Your task to perform on an android device: Go to internet settings Image 0: 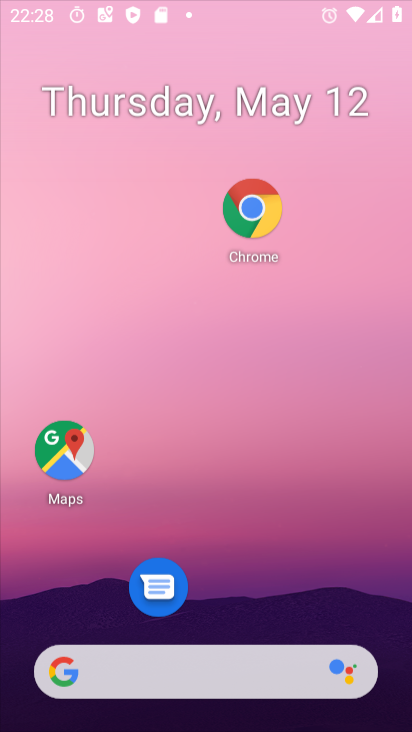
Step 0: click (266, 191)
Your task to perform on an android device: Go to internet settings Image 1: 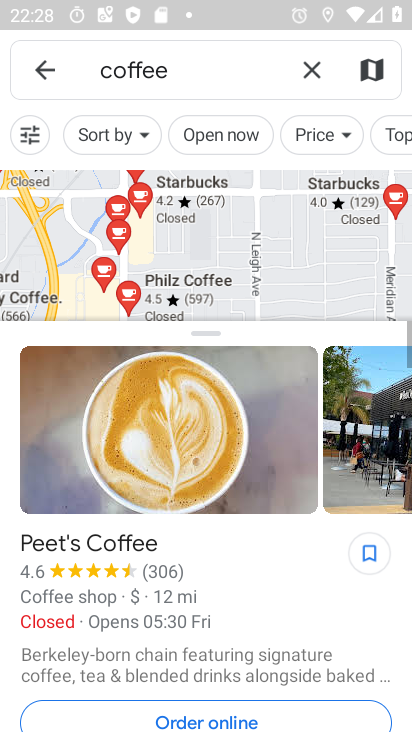
Step 1: press home button
Your task to perform on an android device: Go to internet settings Image 2: 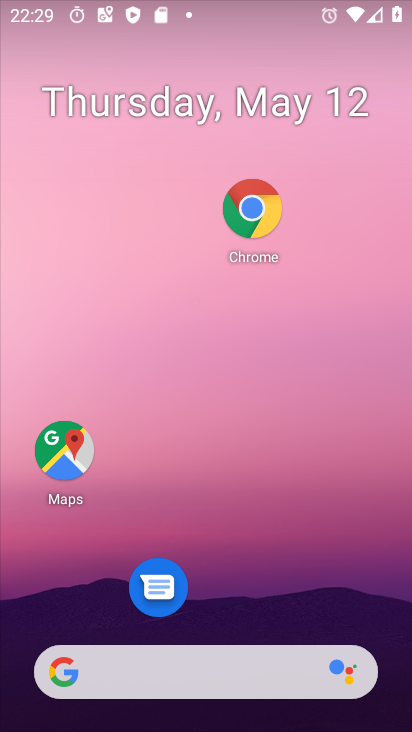
Step 2: drag from (263, 512) to (248, 209)
Your task to perform on an android device: Go to internet settings Image 3: 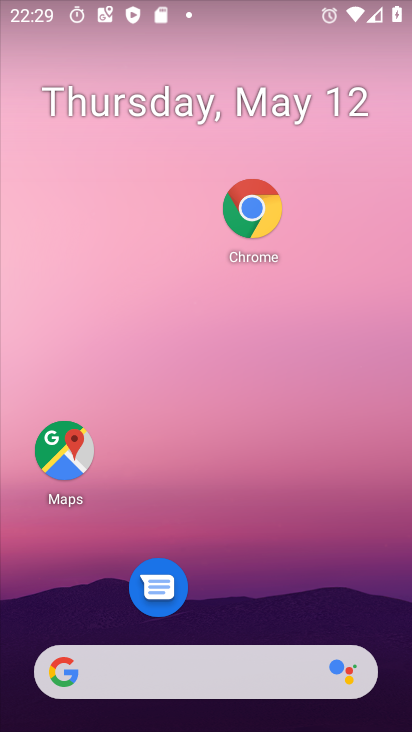
Step 3: drag from (196, 553) to (198, 174)
Your task to perform on an android device: Go to internet settings Image 4: 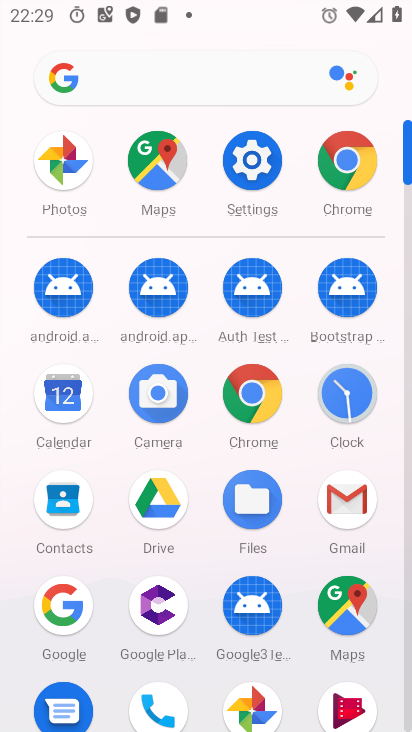
Step 4: click (235, 175)
Your task to perform on an android device: Go to internet settings Image 5: 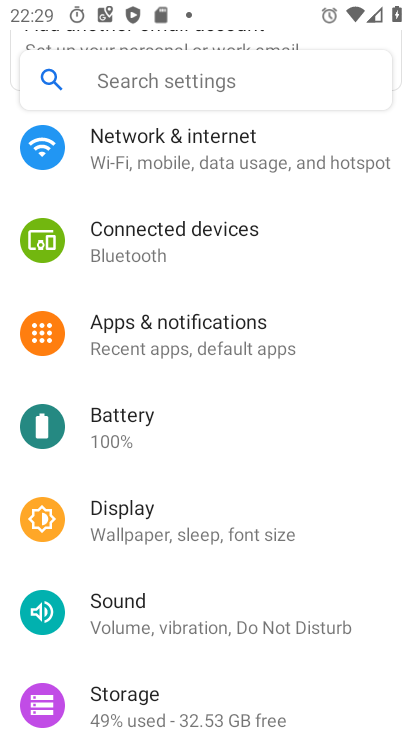
Step 5: drag from (168, 241) to (174, 509)
Your task to perform on an android device: Go to internet settings Image 6: 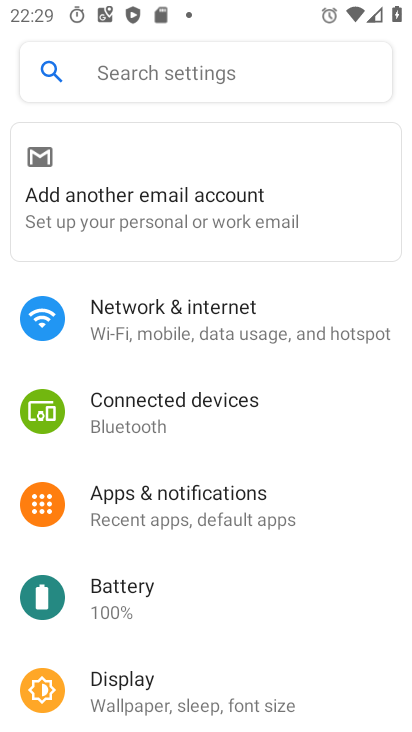
Step 6: click (197, 334)
Your task to perform on an android device: Go to internet settings Image 7: 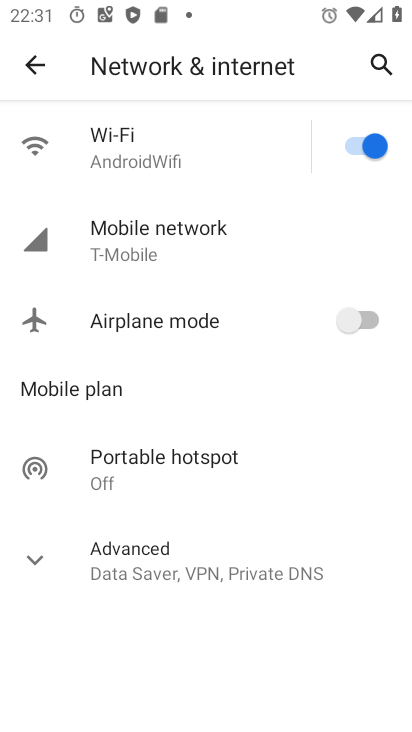
Step 7: task complete